Your task to perform on an android device: remove spam from my inbox in the gmail app Image 0: 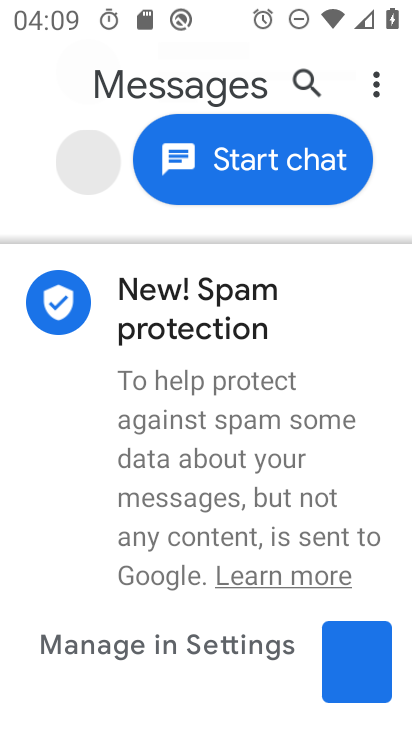
Step 0: press home button
Your task to perform on an android device: remove spam from my inbox in the gmail app Image 1: 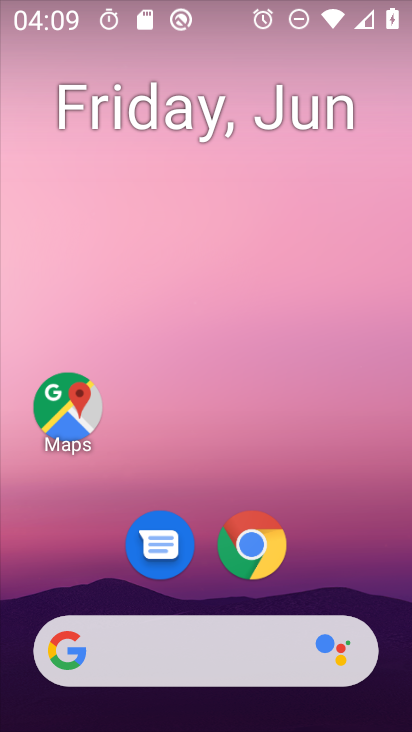
Step 1: drag from (309, 580) to (336, 19)
Your task to perform on an android device: remove spam from my inbox in the gmail app Image 2: 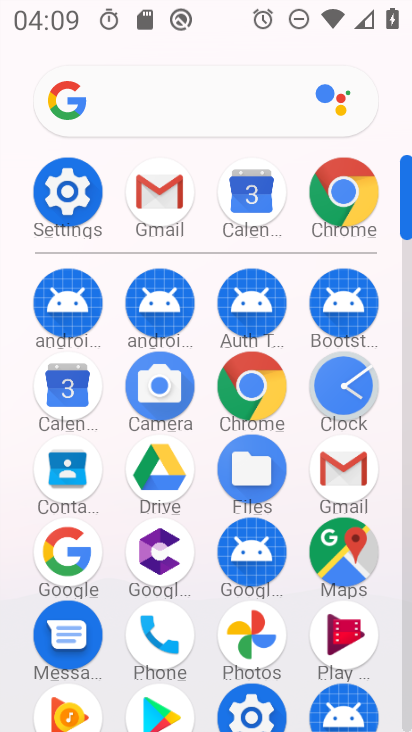
Step 2: click (353, 461)
Your task to perform on an android device: remove spam from my inbox in the gmail app Image 3: 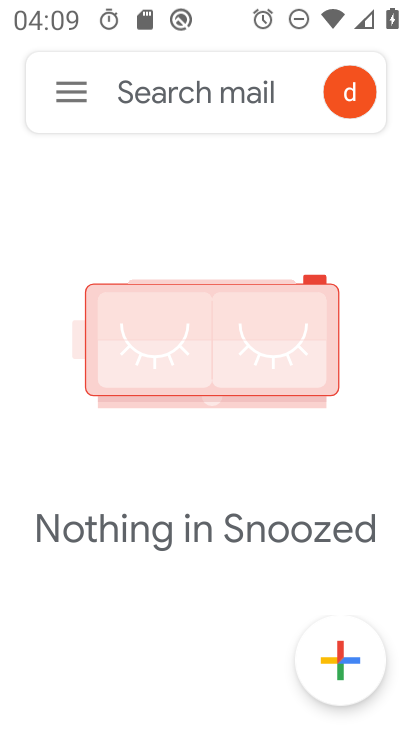
Step 3: click (47, 95)
Your task to perform on an android device: remove spam from my inbox in the gmail app Image 4: 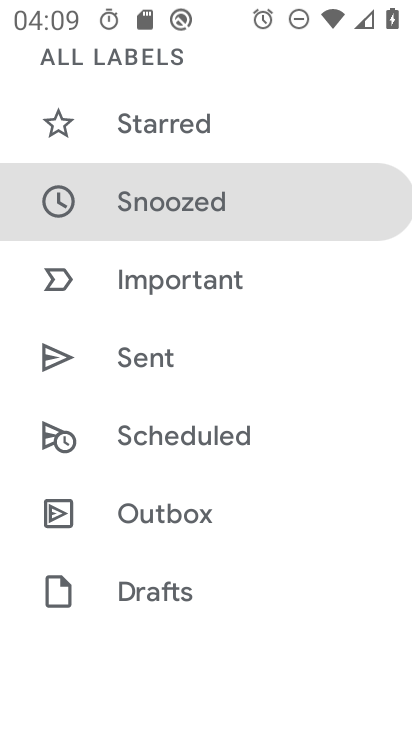
Step 4: drag from (159, 552) to (196, 266)
Your task to perform on an android device: remove spam from my inbox in the gmail app Image 5: 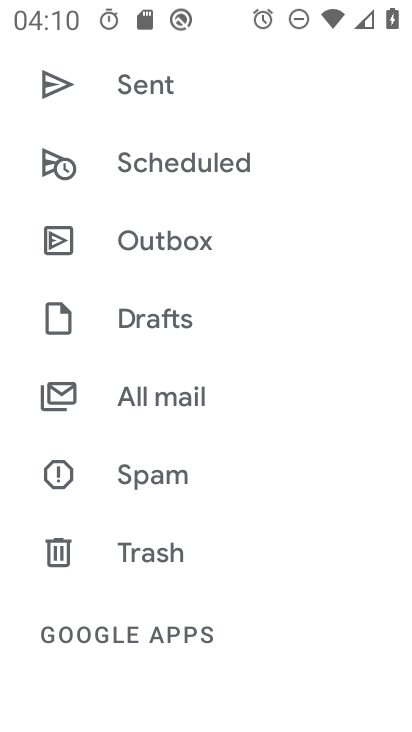
Step 5: click (180, 535)
Your task to perform on an android device: remove spam from my inbox in the gmail app Image 6: 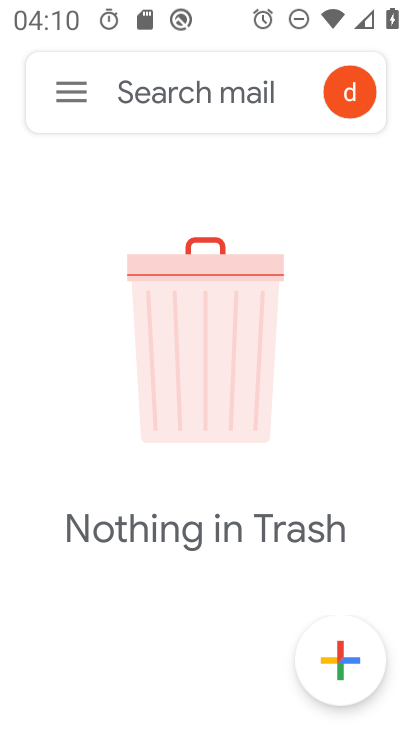
Step 6: task complete